Your task to perform on an android device: turn on improve location accuracy Image 0: 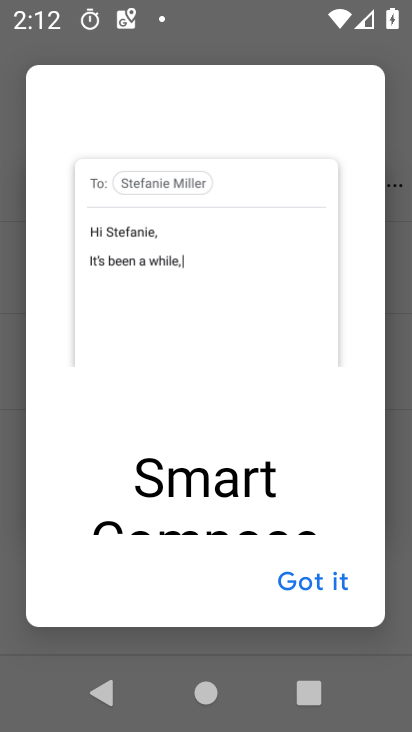
Step 0: press home button
Your task to perform on an android device: turn on improve location accuracy Image 1: 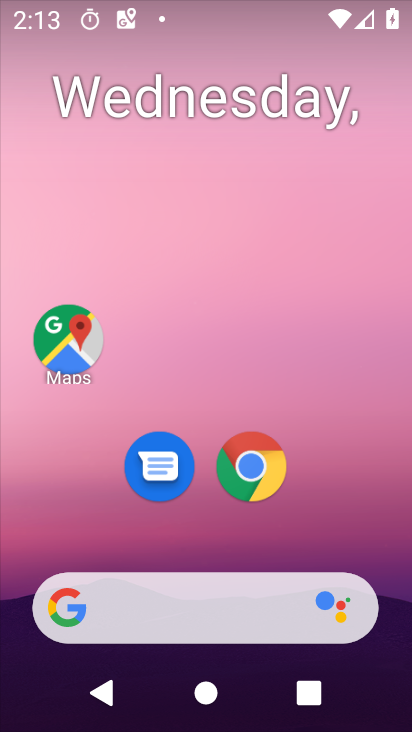
Step 1: drag from (335, 481) to (281, 92)
Your task to perform on an android device: turn on improve location accuracy Image 2: 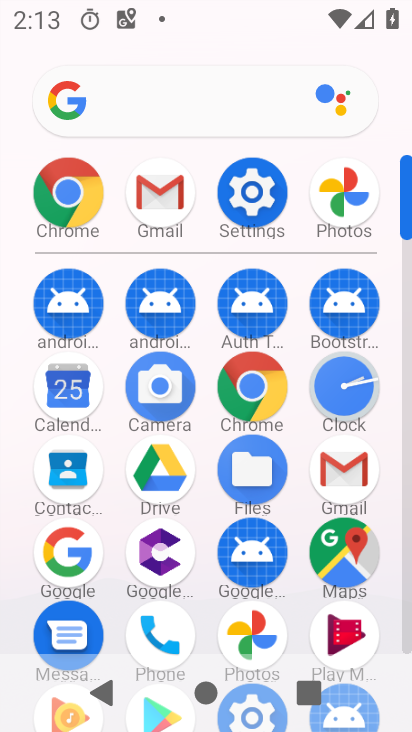
Step 2: click (242, 184)
Your task to perform on an android device: turn on improve location accuracy Image 3: 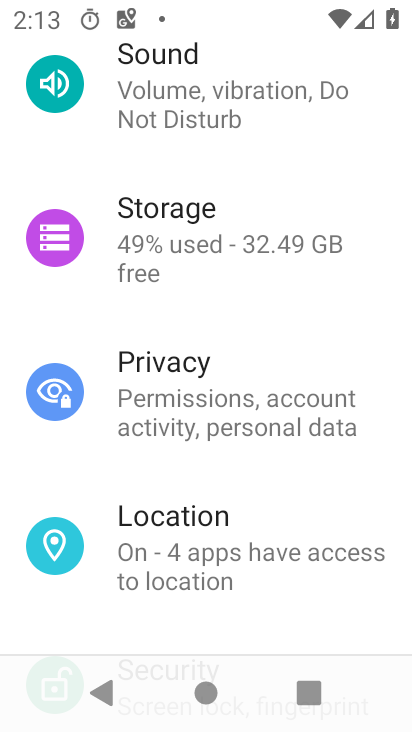
Step 3: click (198, 515)
Your task to perform on an android device: turn on improve location accuracy Image 4: 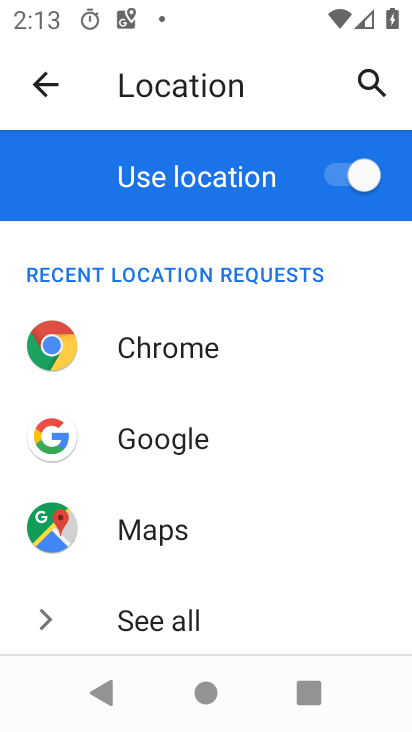
Step 4: drag from (212, 562) to (197, 103)
Your task to perform on an android device: turn on improve location accuracy Image 5: 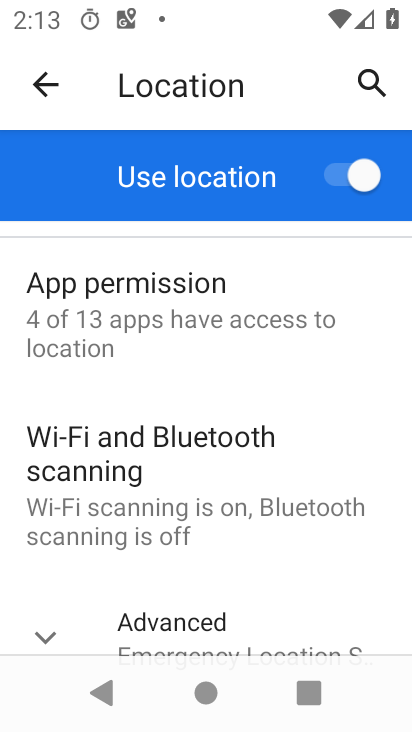
Step 5: drag from (279, 517) to (267, 139)
Your task to perform on an android device: turn on improve location accuracy Image 6: 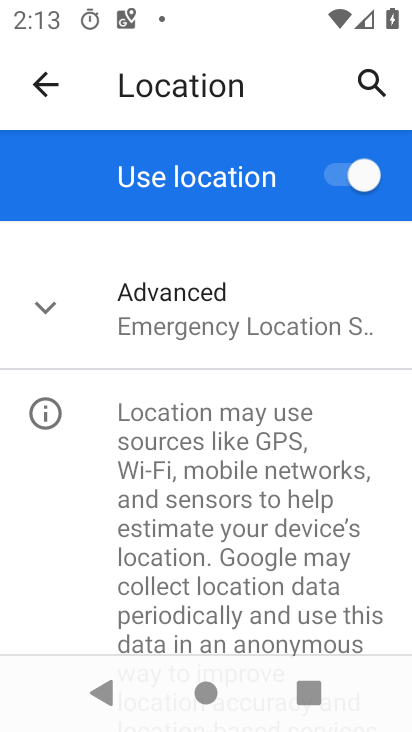
Step 6: click (293, 327)
Your task to perform on an android device: turn on improve location accuracy Image 7: 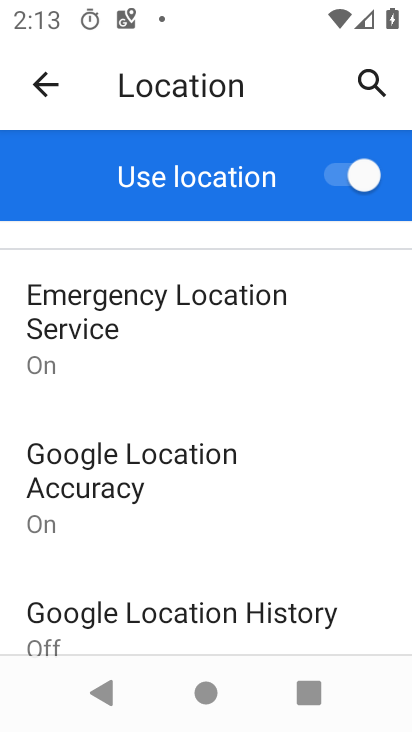
Step 7: drag from (290, 498) to (243, 139)
Your task to perform on an android device: turn on improve location accuracy Image 8: 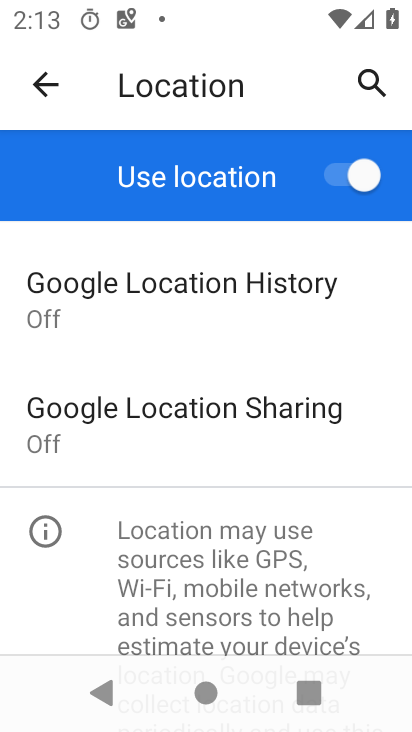
Step 8: drag from (248, 477) to (230, 230)
Your task to perform on an android device: turn on improve location accuracy Image 9: 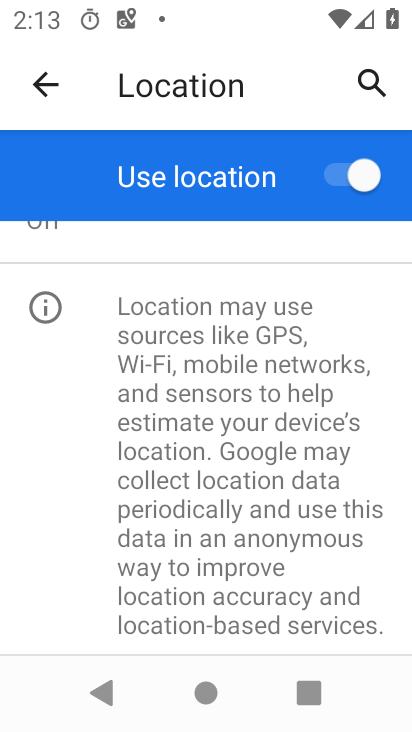
Step 9: drag from (214, 328) to (259, 664)
Your task to perform on an android device: turn on improve location accuracy Image 10: 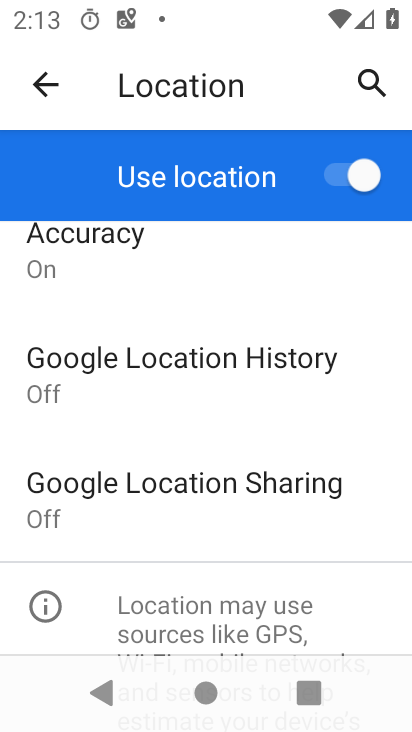
Step 10: drag from (222, 343) to (256, 600)
Your task to perform on an android device: turn on improve location accuracy Image 11: 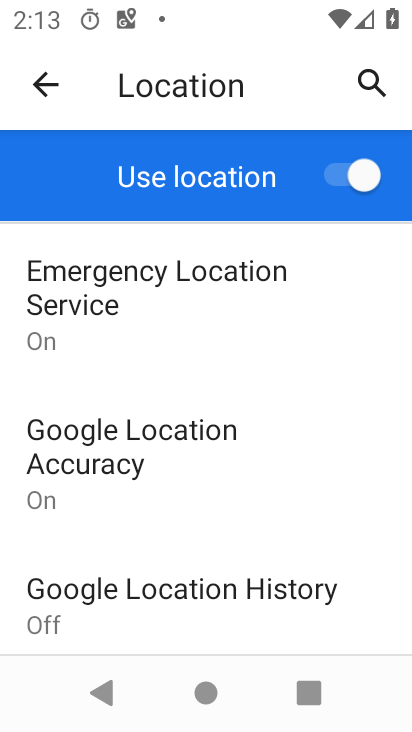
Step 11: drag from (205, 351) to (221, 525)
Your task to perform on an android device: turn on improve location accuracy Image 12: 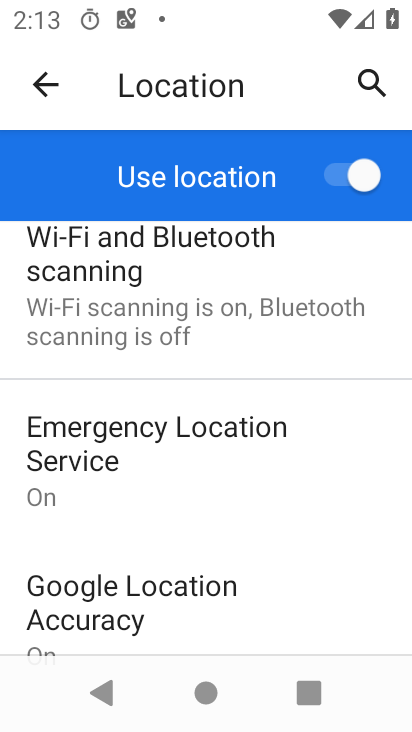
Step 12: click (223, 609)
Your task to perform on an android device: turn on improve location accuracy Image 13: 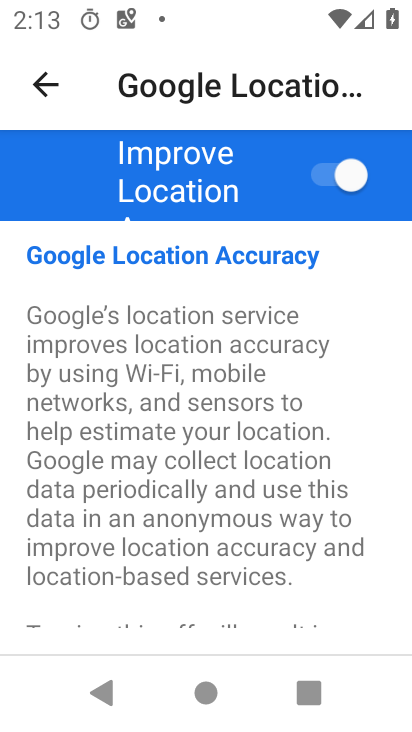
Step 13: task complete